Your task to perform on an android device: Empty the shopping cart on walmart.com. Add apple airpods pro to the cart on walmart.com, then select checkout. Image 0: 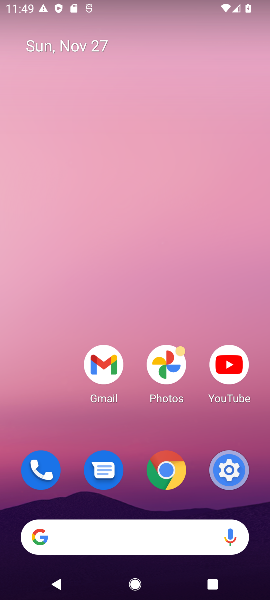
Step 0: task complete